Your task to perform on an android device: Open Maps and search for coffee Image 0: 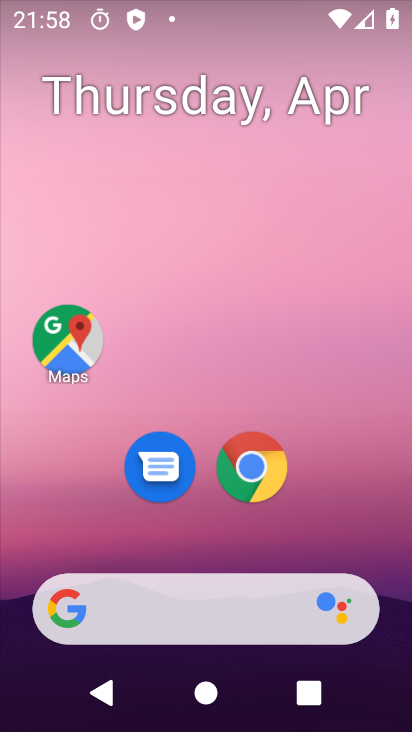
Step 0: click (57, 341)
Your task to perform on an android device: Open Maps and search for coffee Image 1: 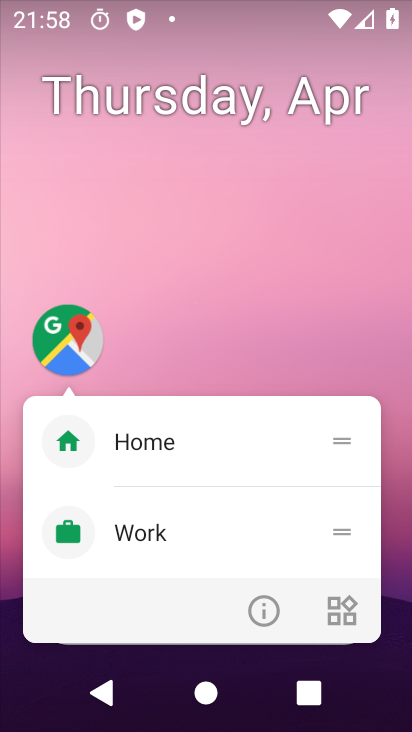
Step 1: click (81, 321)
Your task to perform on an android device: Open Maps and search for coffee Image 2: 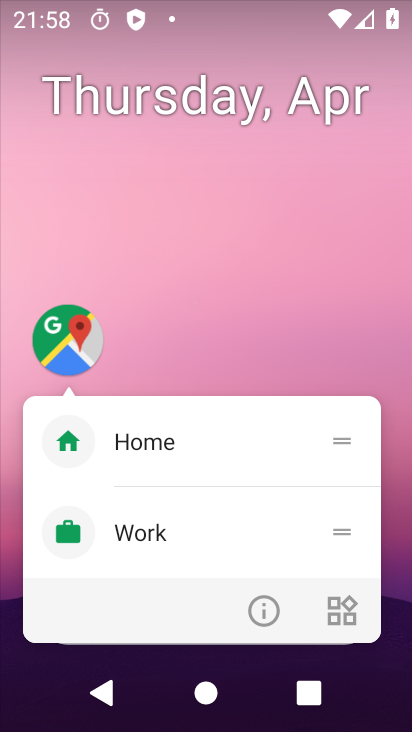
Step 2: click (75, 328)
Your task to perform on an android device: Open Maps and search for coffee Image 3: 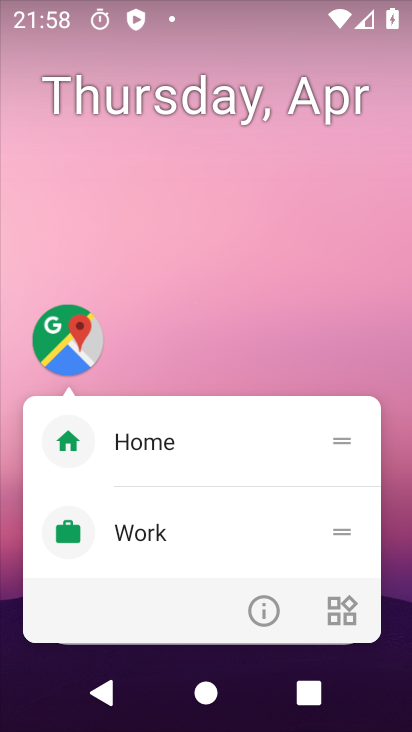
Step 3: click (61, 339)
Your task to perform on an android device: Open Maps and search for coffee Image 4: 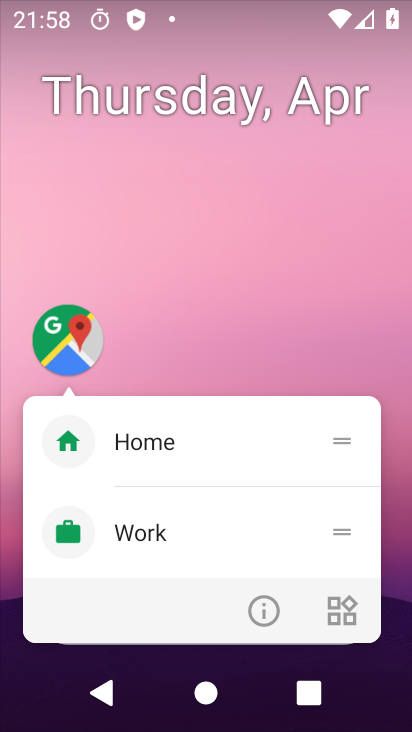
Step 4: click (60, 347)
Your task to perform on an android device: Open Maps and search for coffee Image 5: 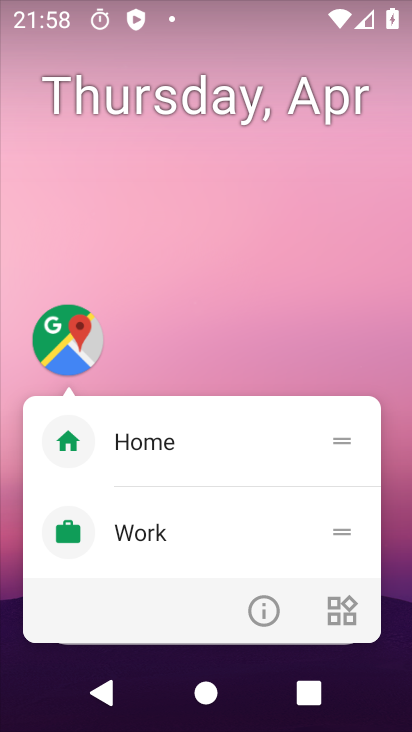
Step 5: click (59, 348)
Your task to perform on an android device: Open Maps and search for coffee Image 6: 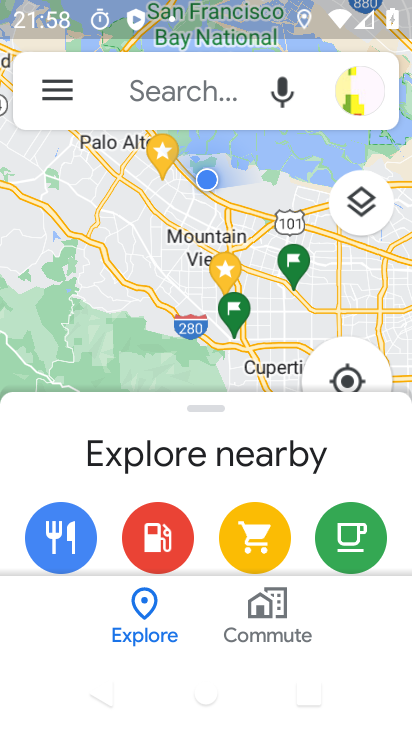
Step 6: click (192, 104)
Your task to perform on an android device: Open Maps and search for coffee Image 7: 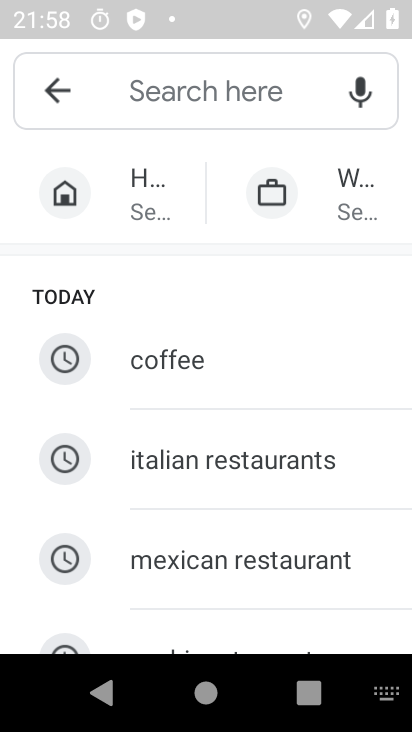
Step 7: click (202, 354)
Your task to perform on an android device: Open Maps and search for coffee Image 8: 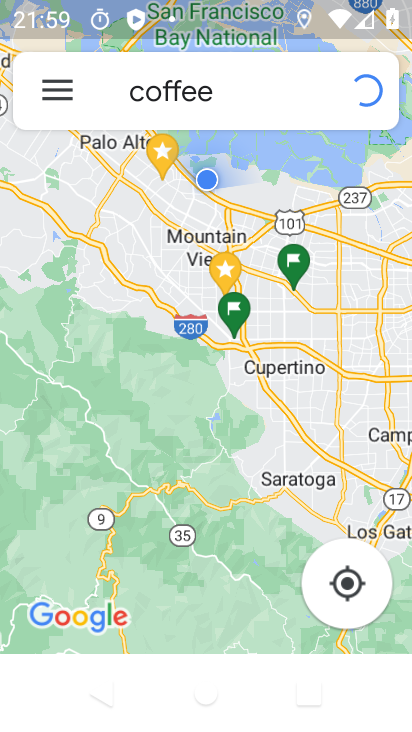
Step 8: task complete